Your task to perform on an android device: Toggle the flashlight Image 0: 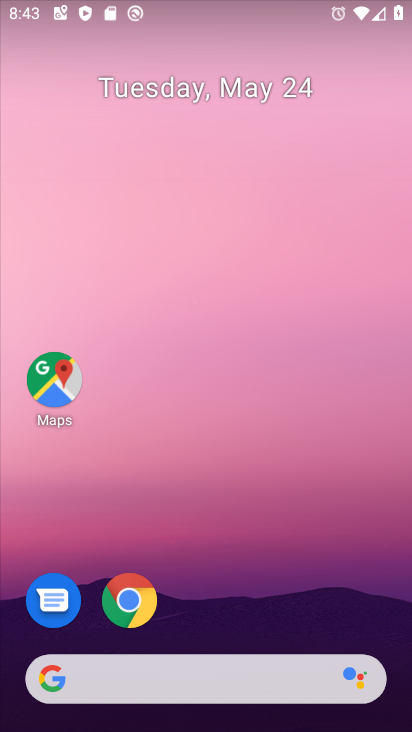
Step 0: drag from (210, 726) to (152, 142)
Your task to perform on an android device: Toggle the flashlight Image 1: 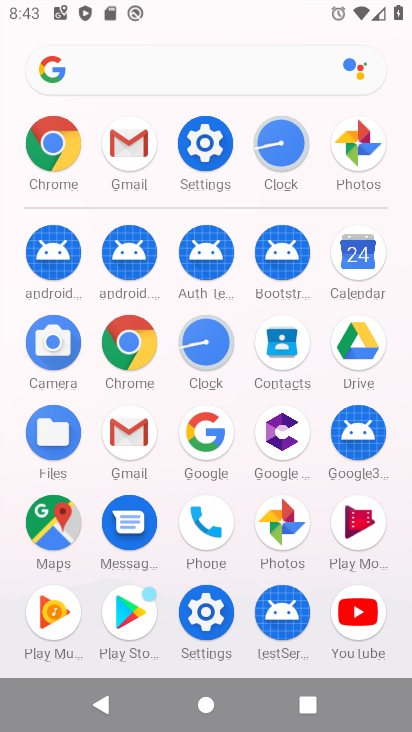
Step 1: click (199, 153)
Your task to perform on an android device: Toggle the flashlight Image 2: 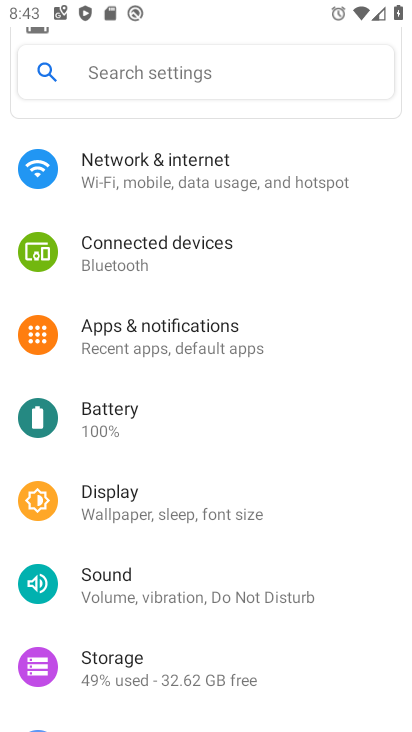
Step 2: task complete